Your task to perform on an android device: delete the emails in spam in the gmail app Image 0: 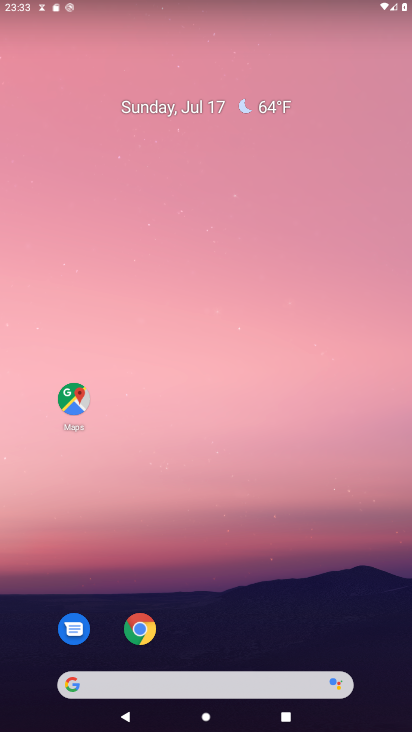
Step 0: drag from (263, 598) to (238, 249)
Your task to perform on an android device: delete the emails in spam in the gmail app Image 1: 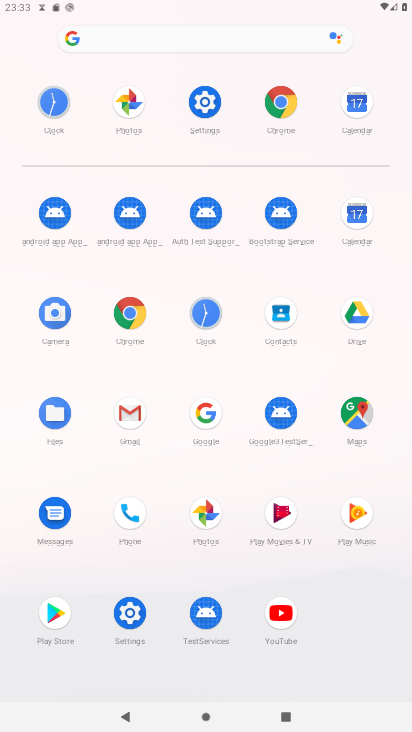
Step 1: click (126, 412)
Your task to perform on an android device: delete the emails in spam in the gmail app Image 2: 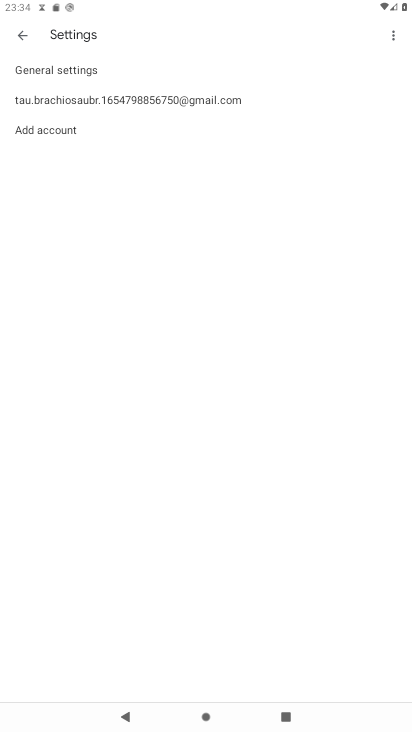
Step 2: click (30, 38)
Your task to perform on an android device: delete the emails in spam in the gmail app Image 3: 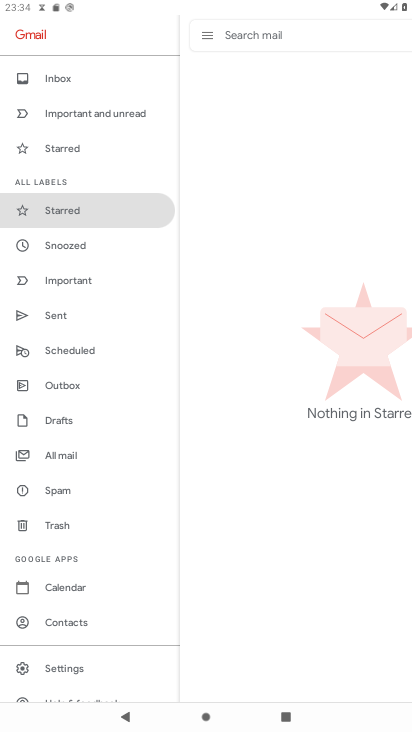
Step 3: click (63, 470)
Your task to perform on an android device: delete the emails in spam in the gmail app Image 4: 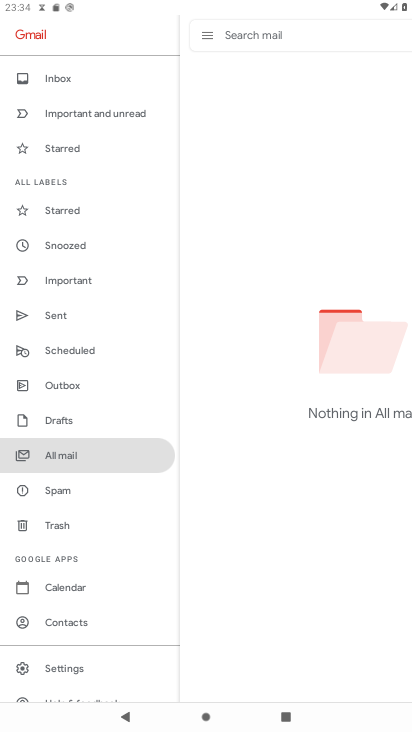
Step 4: click (274, 389)
Your task to perform on an android device: delete the emails in spam in the gmail app Image 5: 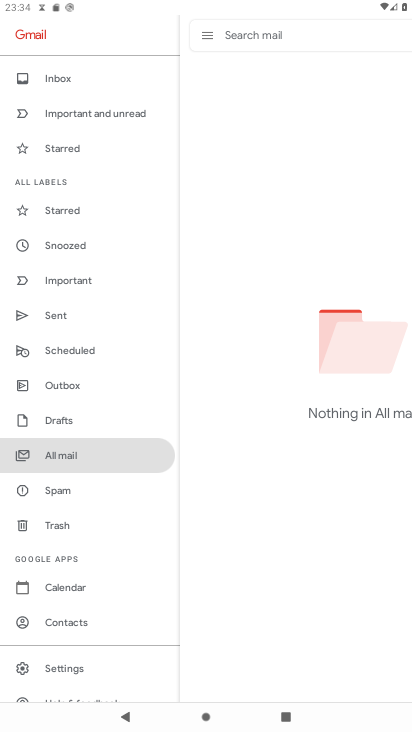
Step 5: task complete